Your task to perform on an android device: toggle notification dots Image 0: 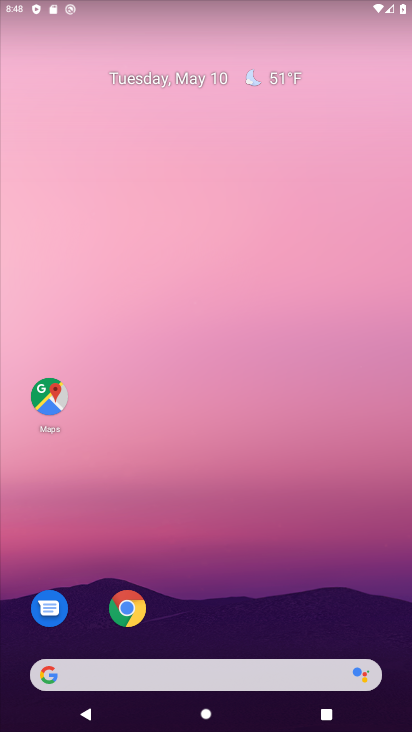
Step 0: drag from (264, 590) to (258, 118)
Your task to perform on an android device: toggle notification dots Image 1: 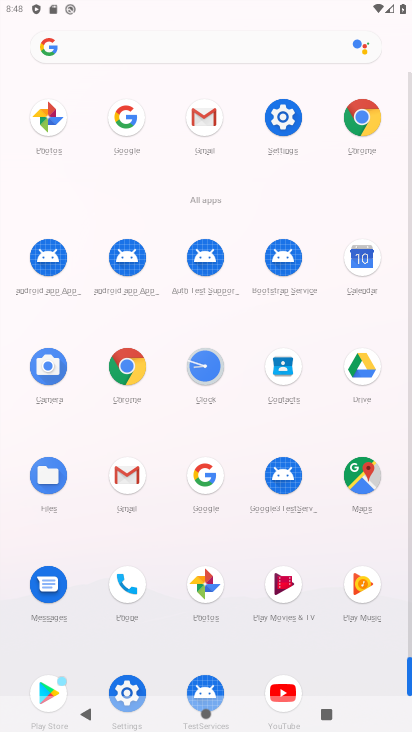
Step 1: click (284, 115)
Your task to perform on an android device: toggle notification dots Image 2: 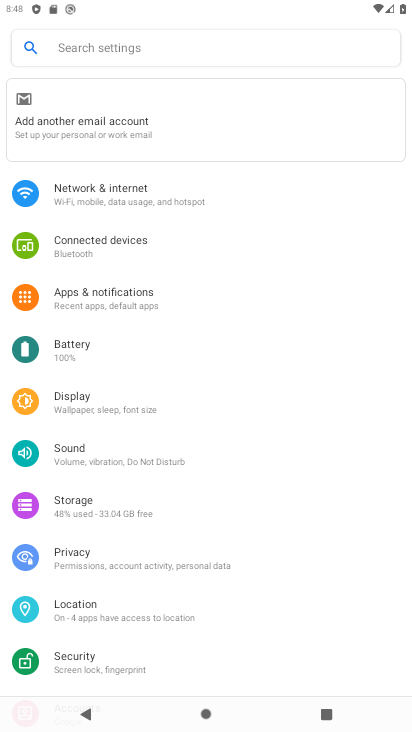
Step 2: click (118, 293)
Your task to perform on an android device: toggle notification dots Image 3: 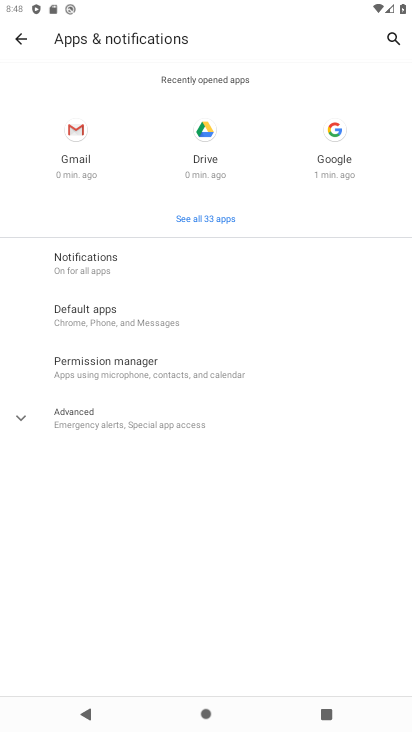
Step 3: click (83, 258)
Your task to perform on an android device: toggle notification dots Image 4: 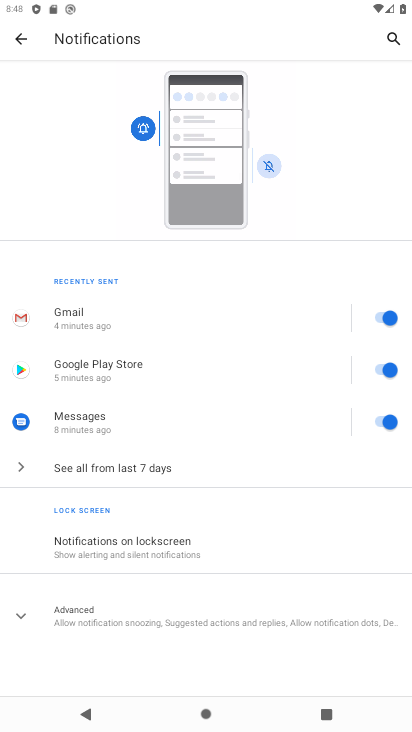
Step 4: click (85, 624)
Your task to perform on an android device: toggle notification dots Image 5: 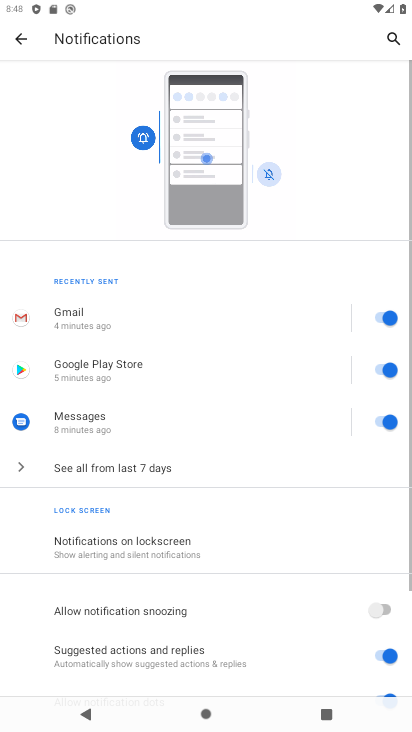
Step 5: drag from (85, 624) to (144, 493)
Your task to perform on an android device: toggle notification dots Image 6: 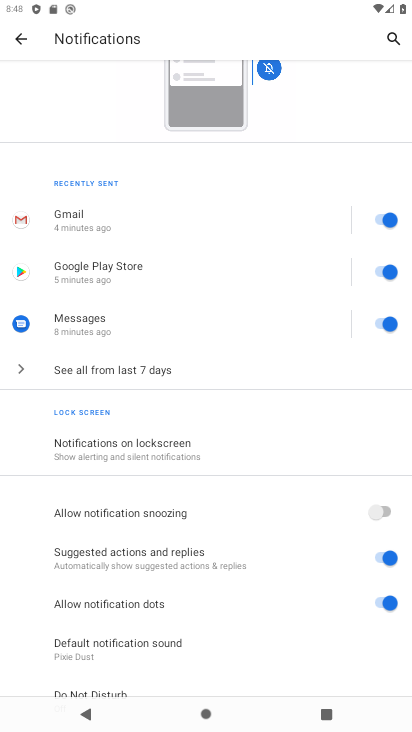
Step 6: click (383, 600)
Your task to perform on an android device: toggle notification dots Image 7: 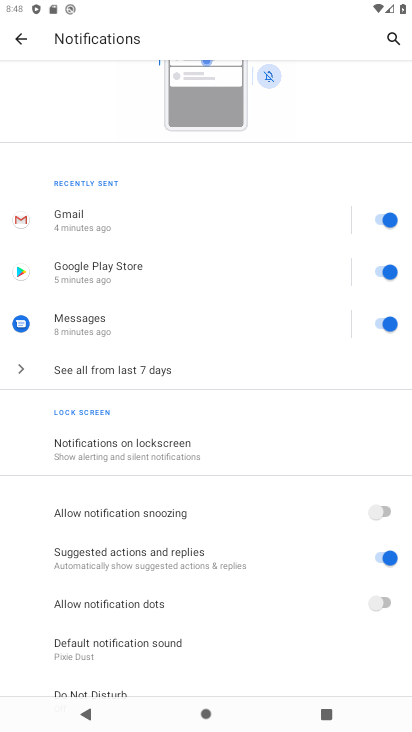
Step 7: task complete